Your task to perform on an android device: Open Android settings Image 0: 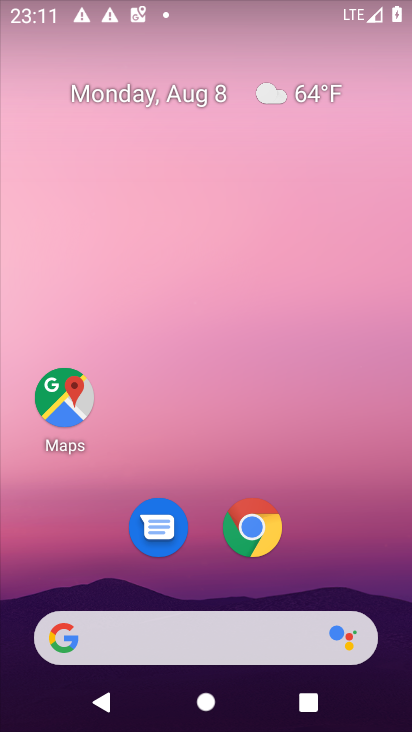
Step 0: drag from (392, 720) to (339, 130)
Your task to perform on an android device: Open Android settings Image 1: 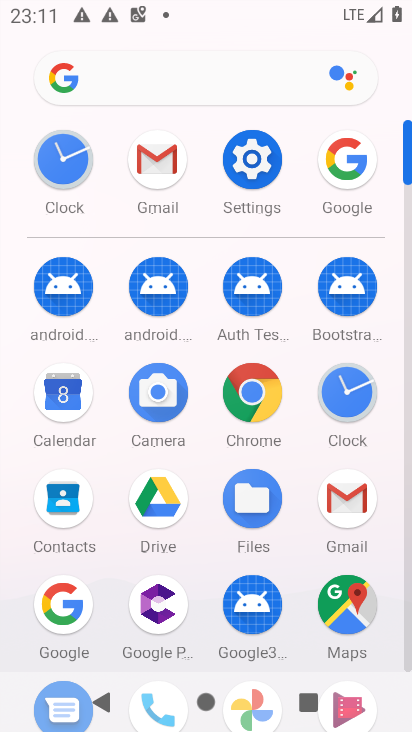
Step 1: click (259, 162)
Your task to perform on an android device: Open Android settings Image 2: 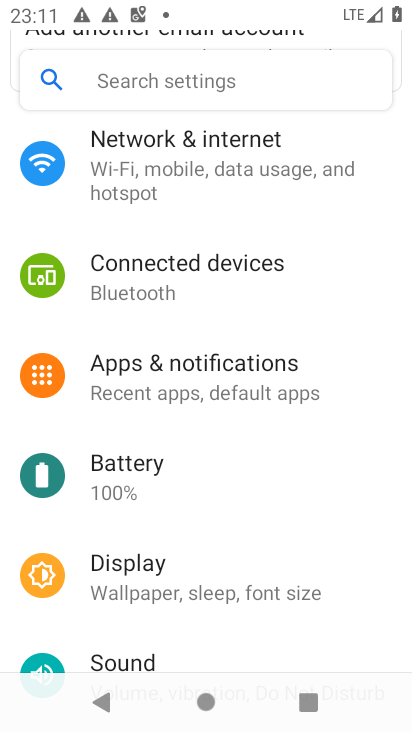
Step 2: task complete